Your task to perform on an android device: turn off sleep mode Image 0: 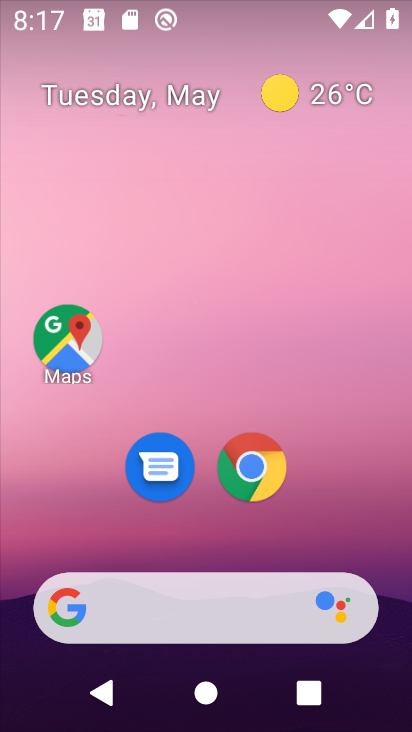
Step 0: drag from (381, 589) to (380, 238)
Your task to perform on an android device: turn off sleep mode Image 1: 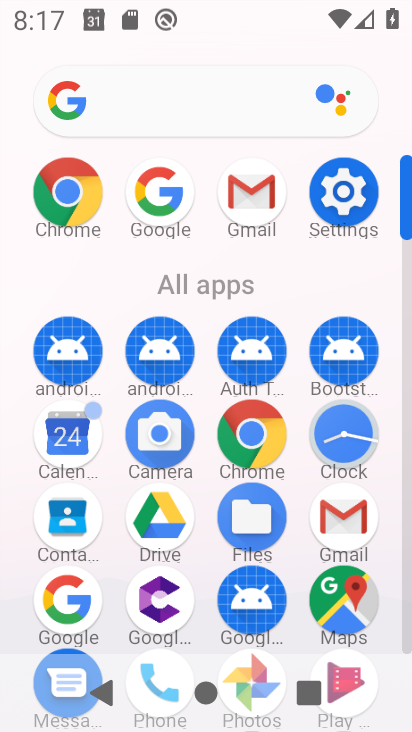
Step 1: click (339, 202)
Your task to perform on an android device: turn off sleep mode Image 2: 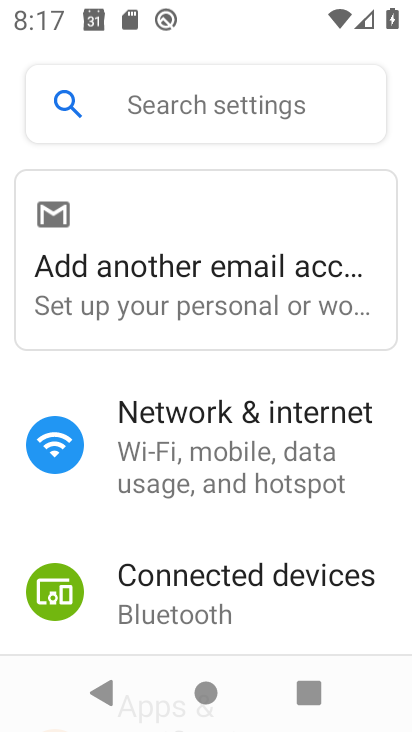
Step 2: drag from (346, 635) to (288, 238)
Your task to perform on an android device: turn off sleep mode Image 3: 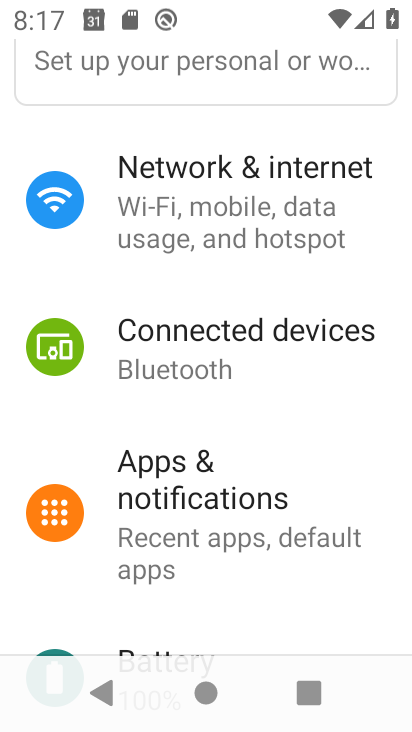
Step 3: drag from (316, 625) to (292, 274)
Your task to perform on an android device: turn off sleep mode Image 4: 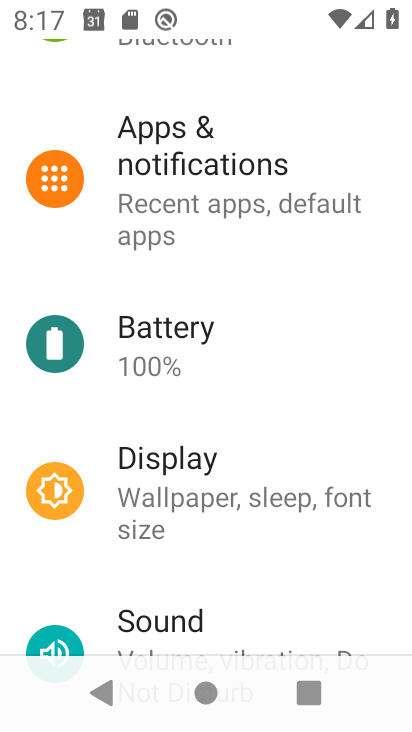
Step 4: drag from (327, 617) to (314, 347)
Your task to perform on an android device: turn off sleep mode Image 5: 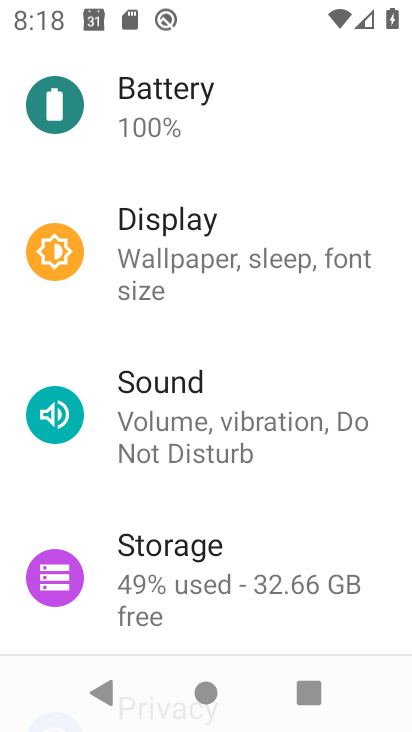
Step 5: drag from (295, 625) to (265, 282)
Your task to perform on an android device: turn off sleep mode Image 6: 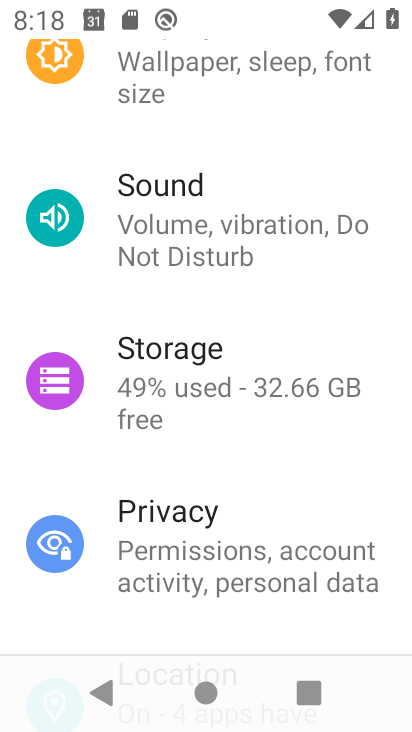
Step 6: drag from (294, 129) to (294, 398)
Your task to perform on an android device: turn off sleep mode Image 7: 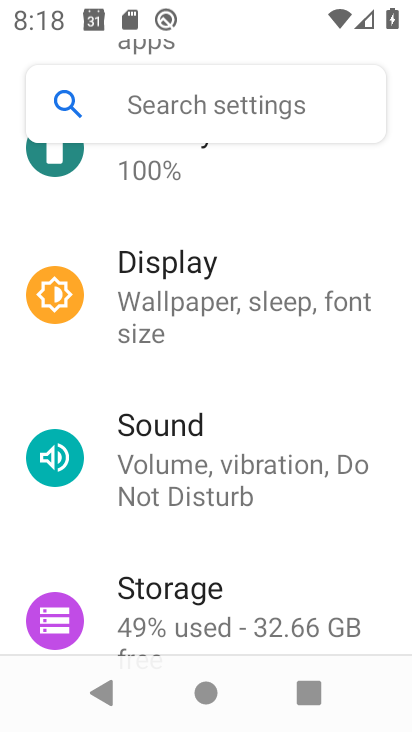
Step 7: click (196, 283)
Your task to perform on an android device: turn off sleep mode Image 8: 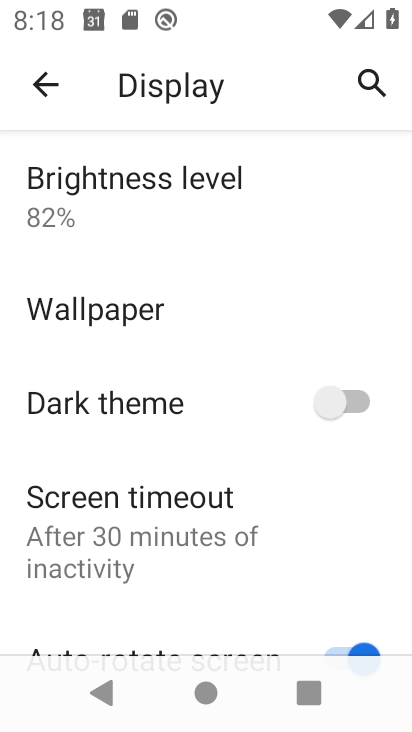
Step 8: click (140, 517)
Your task to perform on an android device: turn off sleep mode Image 9: 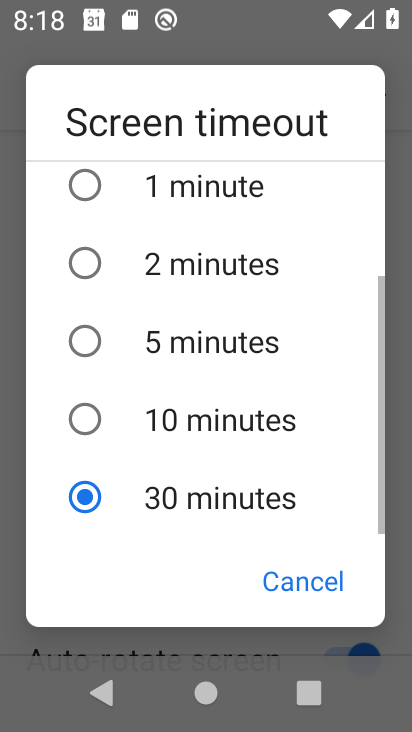
Step 9: task complete